Your task to perform on an android device: Go to notification settings Image 0: 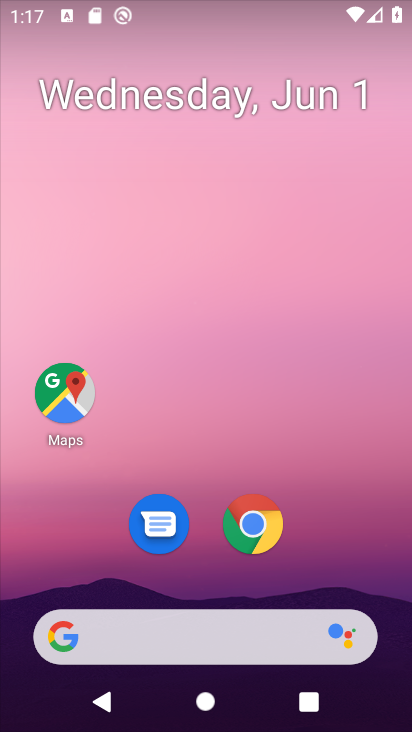
Step 0: drag from (331, 524) to (275, 54)
Your task to perform on an android device: Go to notification settings Image 1: 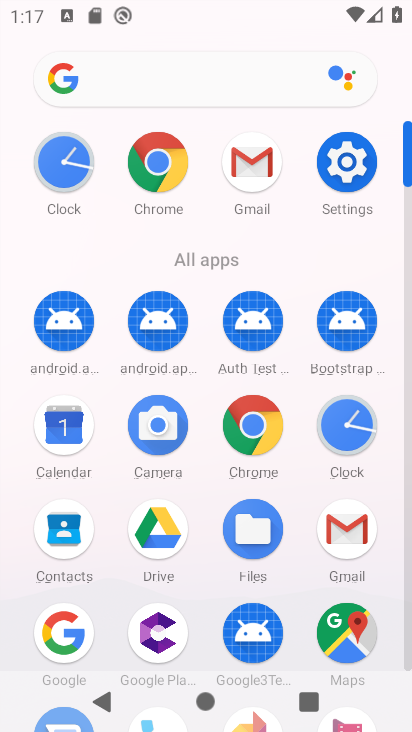
Step 1: click (343, 166)
Your task to perform on an android device: Go to notification settings Image 2: 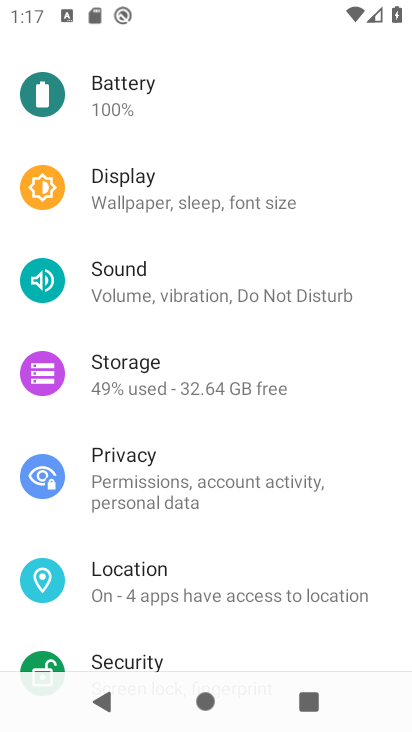
Step 2: drag from (261, 201) to (252, 565)
Your task to perform on an android device: Go to notification settings Image 3: 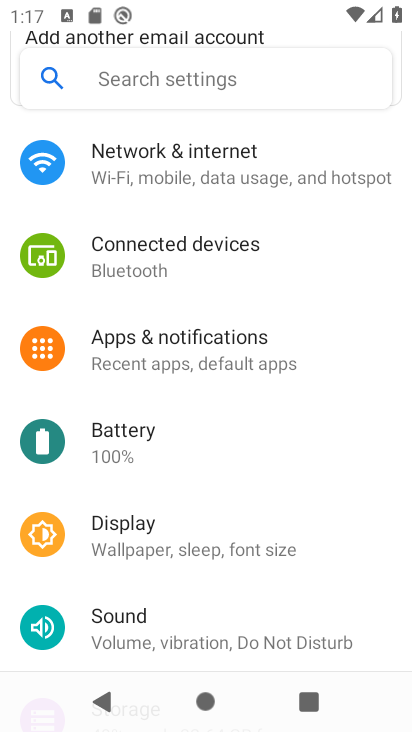
Step 3: click (209, 354)
Your task to perform on an android device: Go to notification settings Image 4: 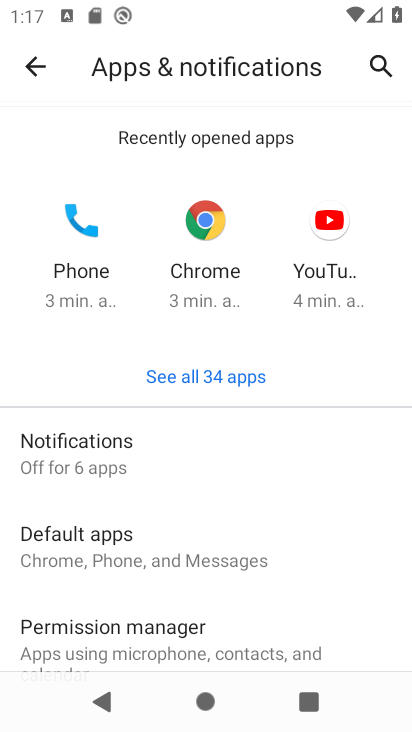
Step 4: click (164, 455)
Your task to perform on an android device: Go to notification settings Image 5: 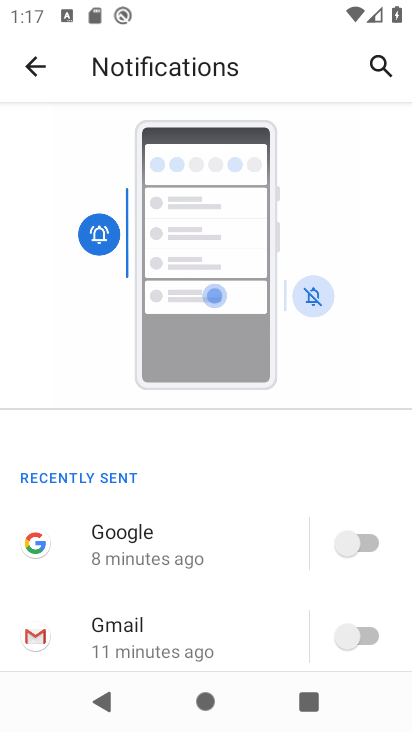
Step 5: task complete